Your task to perform on an android device: Open Maps and search for coffee Image 0: 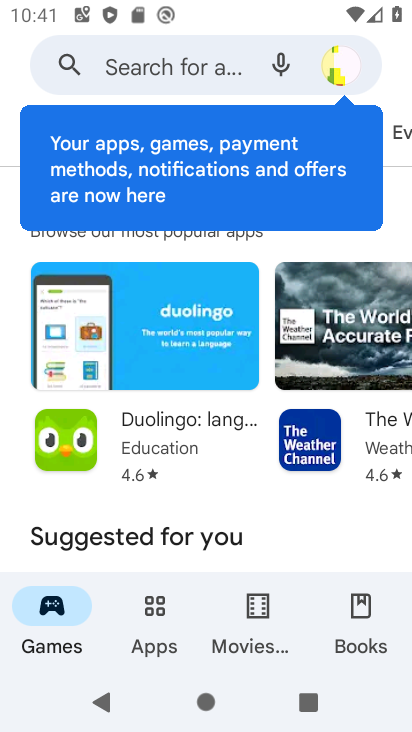
Step 0: press home button
Your task to perform on an android device: Open Maps and search for coffee Image 1: 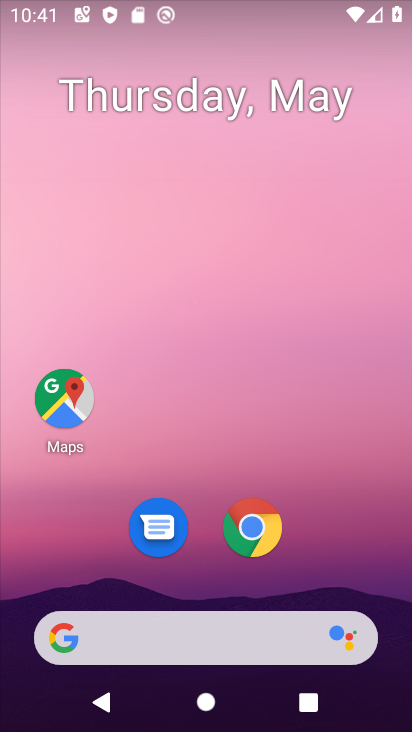
Step 1: click (73, 421)
Your task to perform on an android device: Open Maps and search for coffee Image 2: 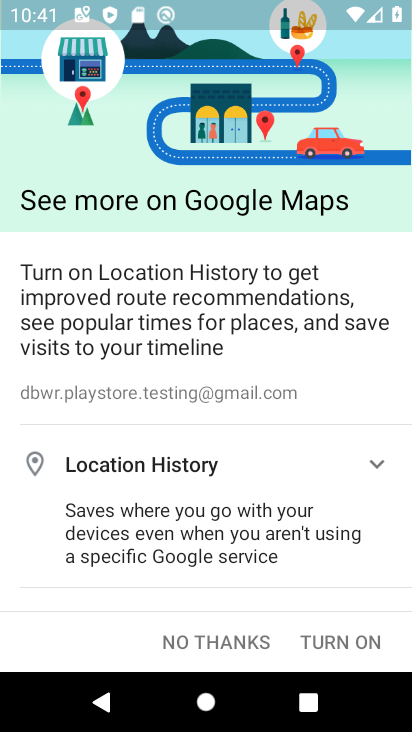
Step 2: click (204, 632)
Your task to perform on an android device: Open Maps and search for coffee Image 3: 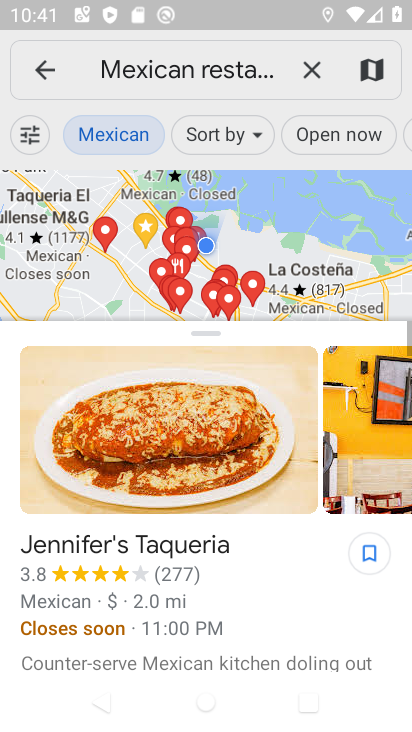
Step 3: click (239, 73)
Your task to perform on an android device: Open Maps and search for coffee Image 4: 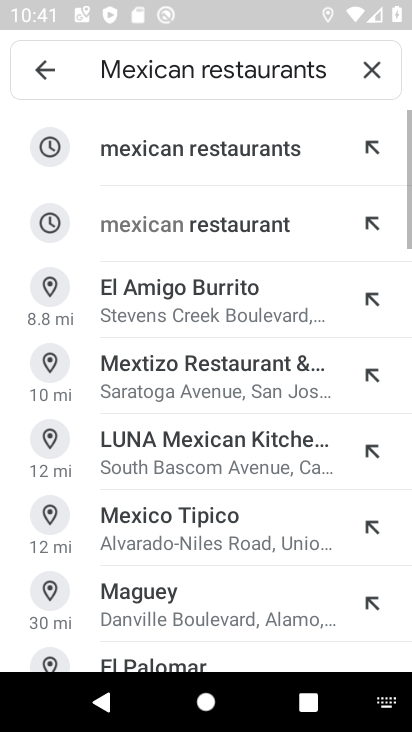
Step 4: click (369, 61)
Your task to perform on an android device: Open Maps and search for coffee Image 5: 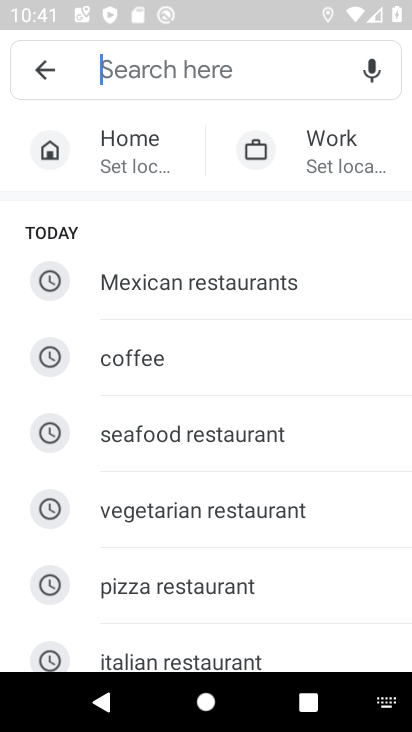
Step 5: click (133, 369)
Your task to perform on an android device: Open Maps and search for coffee Image 6: 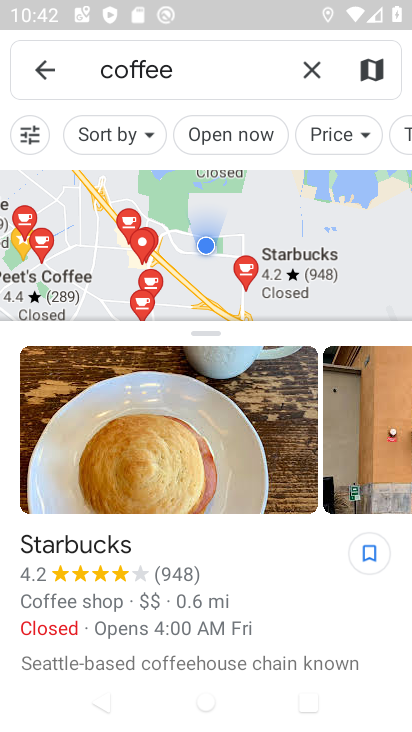
Step 6: task complete